Your task to perform on an android device: What's a good restaurant in Los Angeles? Image 0: 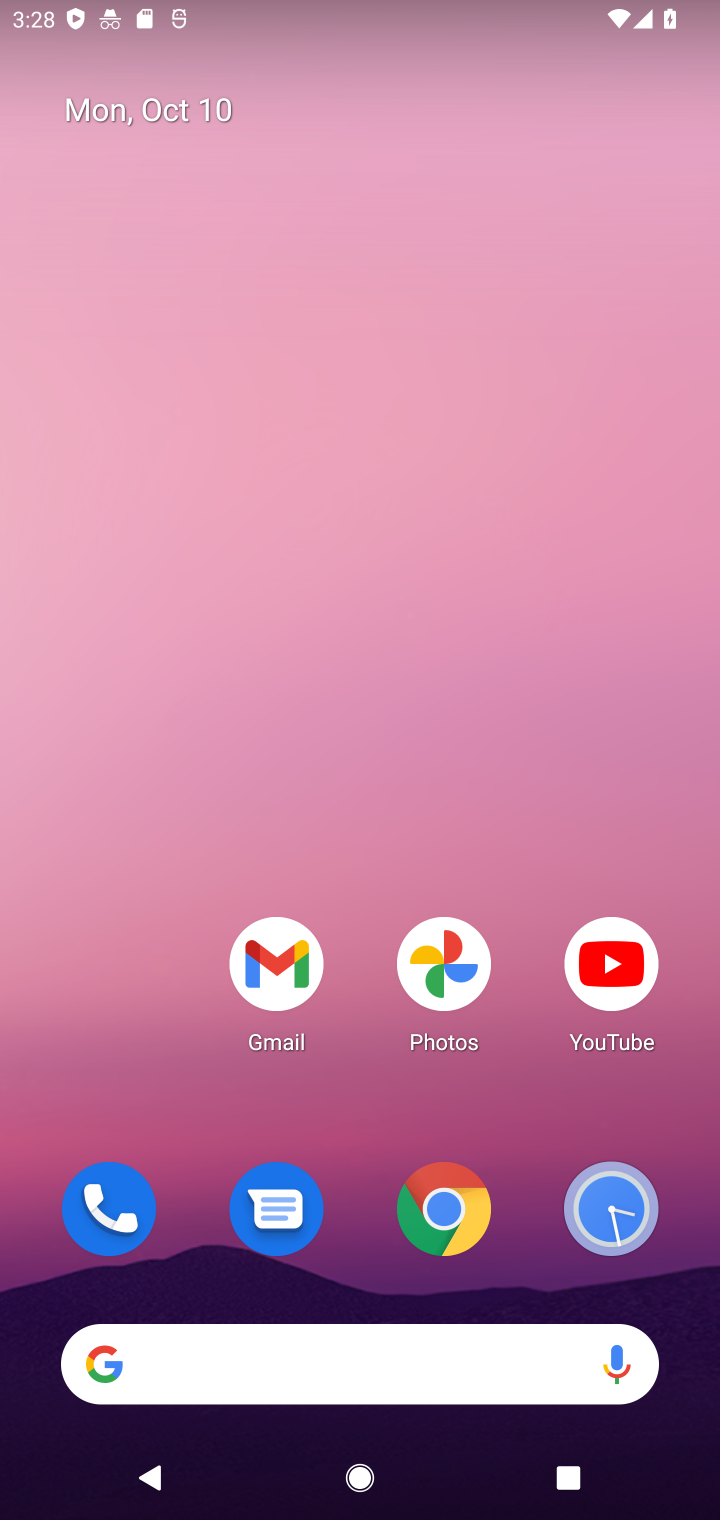
Step 0: click (461, 1206)
Your task to perform on an android device: What's a good restaurant in Los Angeles? Image 1: 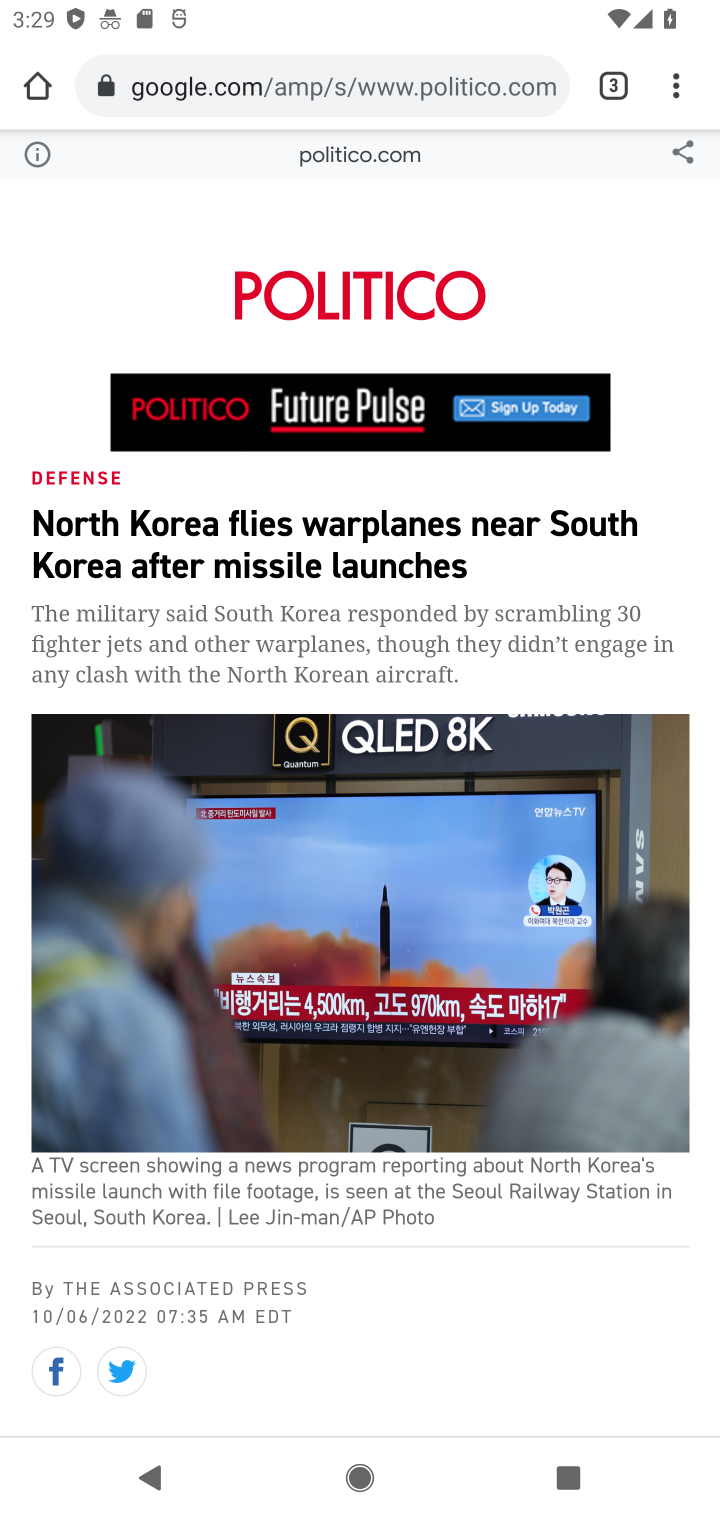
Step 1: click (361, 90)
Your task to perform on an android device: What's a good restaurant in Los Angeles? Image 2: 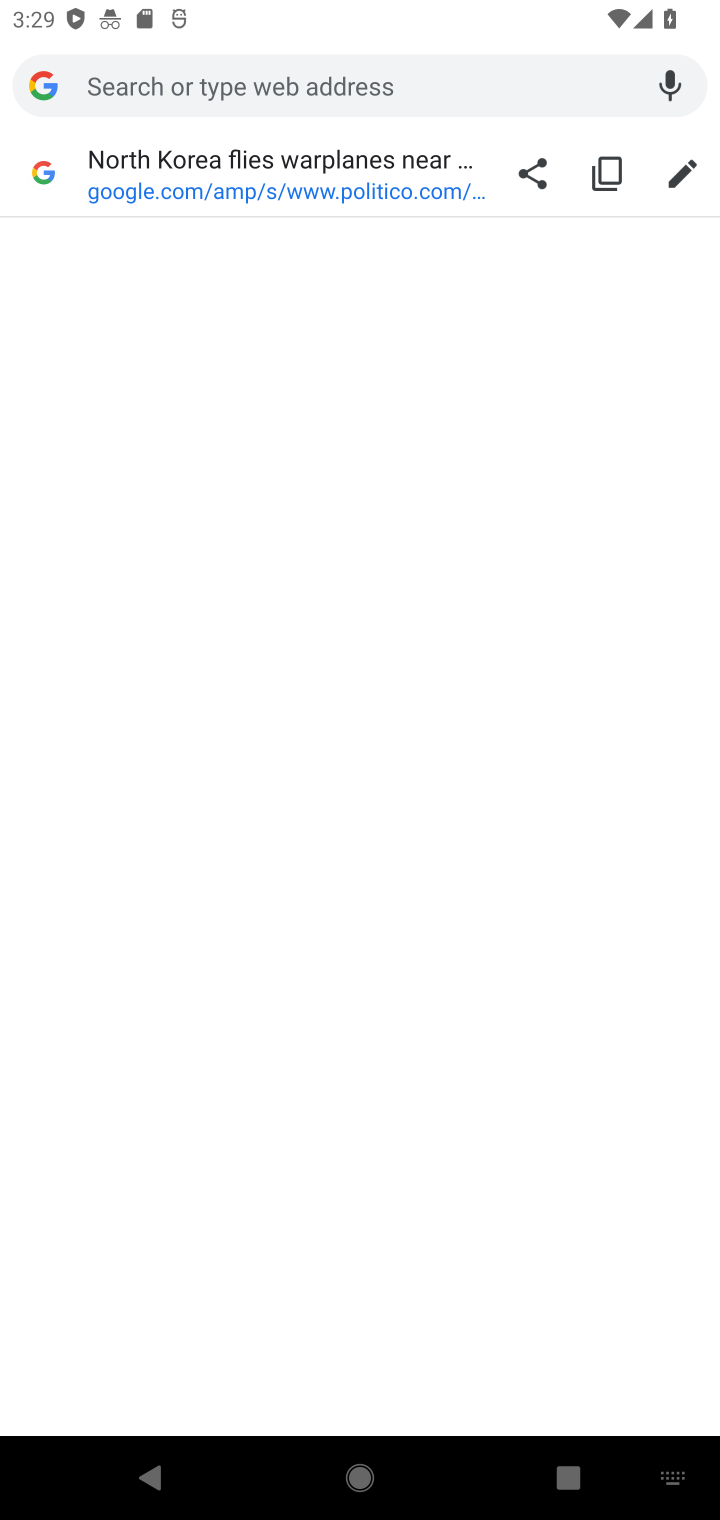
Step 2: type "What's a good restaurant in Los Angeles?"
Your task to perform on an android device: What's a good restaurant in Los Angeles? Image 3: 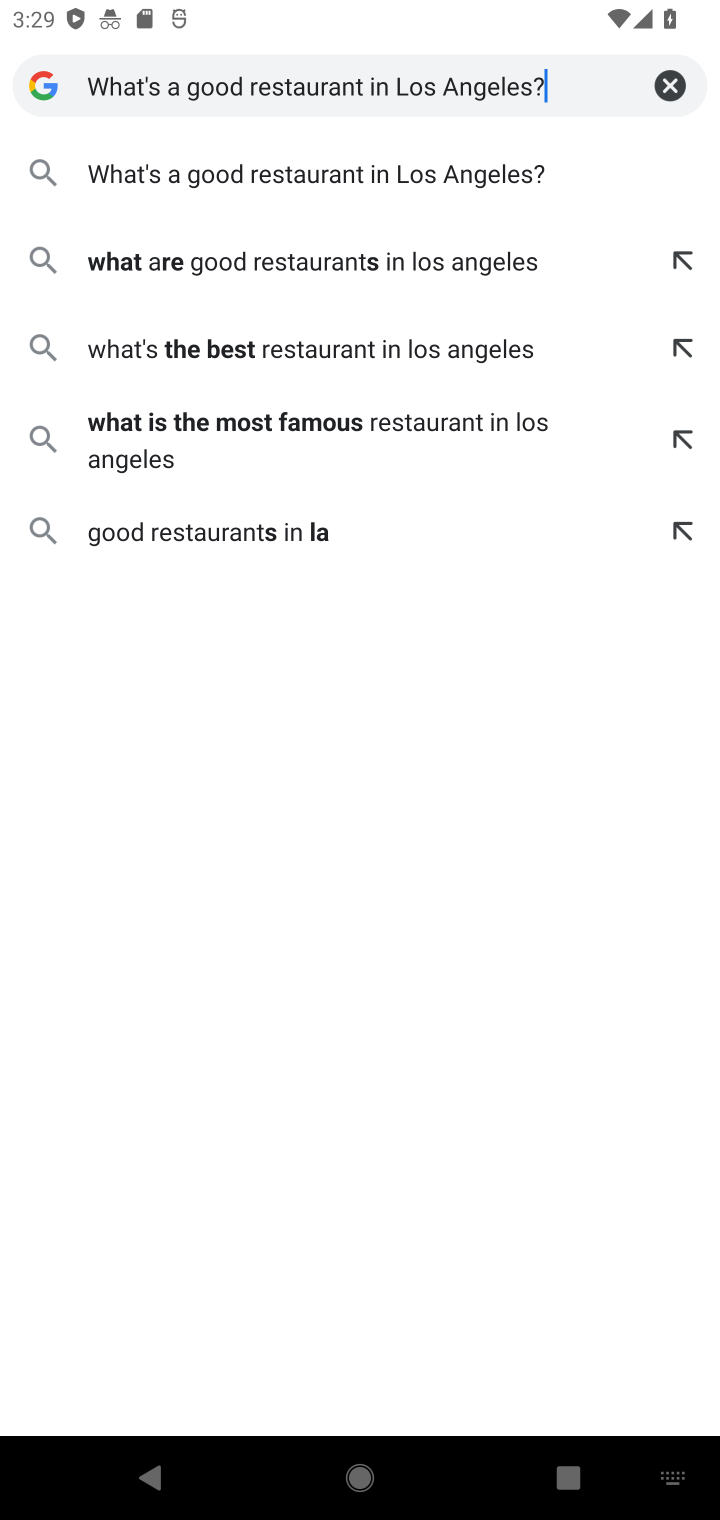
Step 3: press enter
Your task to perform on an android device: What's a good restaurant in Los Angeles? Image 4: 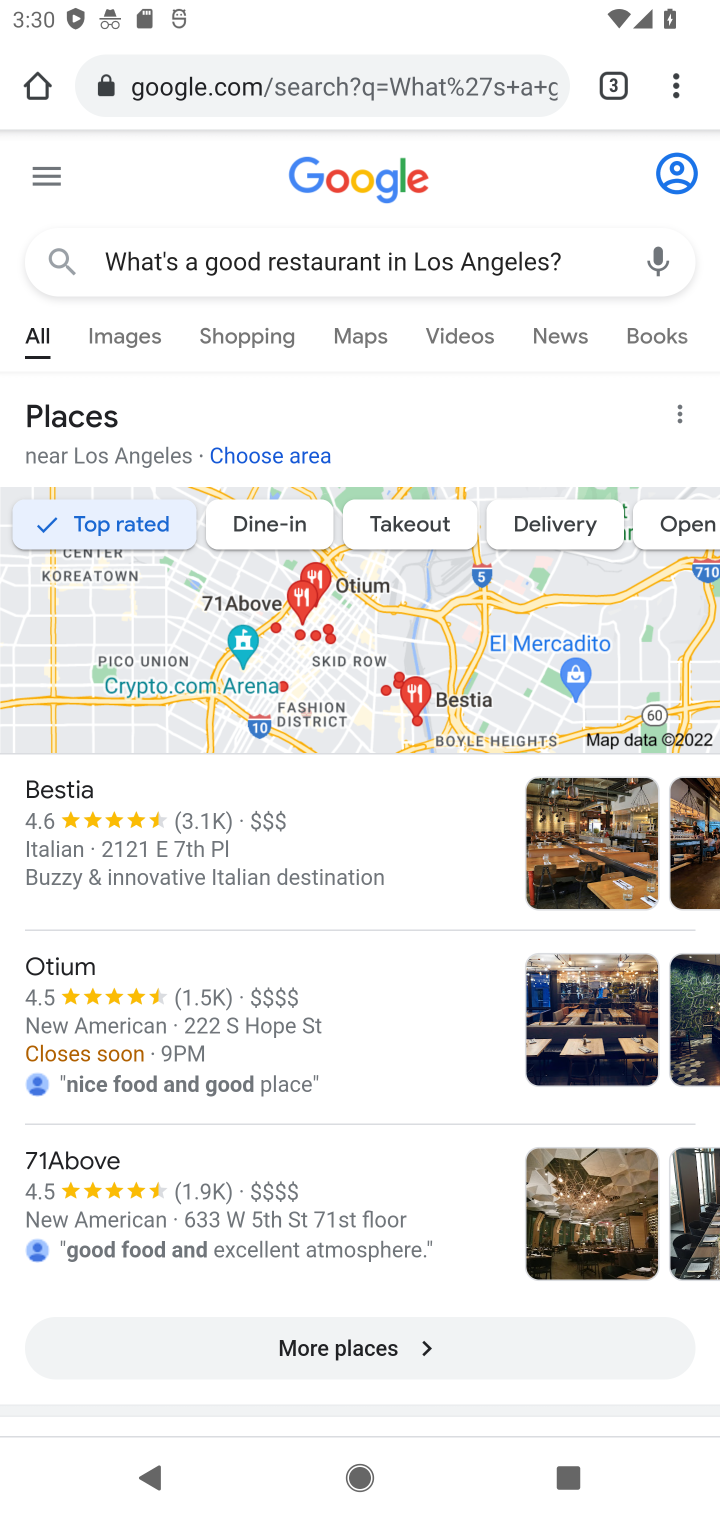
Step 4: task complete